Your task to perform on an android device: turn off airplane mode Image 0: 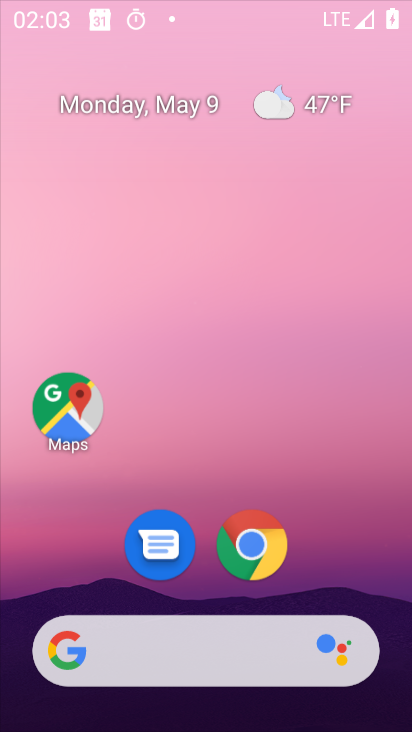
Step 0: drag from (297, 269) to (274, 2)
Your task to perform on an android device: turn off airplane mode Image 1: 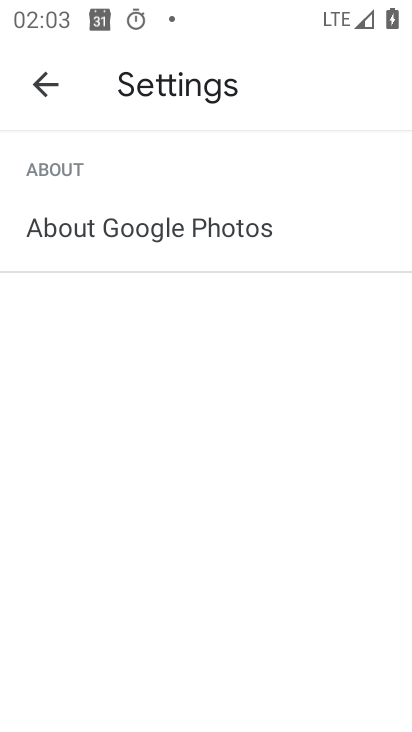
Step 1: press home button
Your task to perform on an android device: turn off airplane mode Image 2: 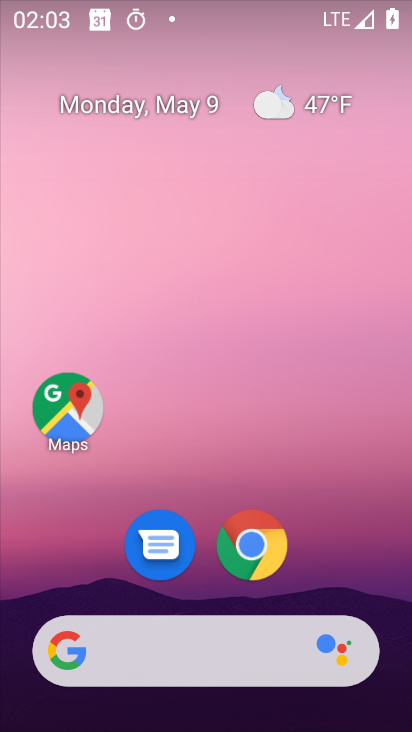
Step 2: drag from (335, 657) to (311, 1)
Your task to perform on an android device: turn off airplane mode Image 3: 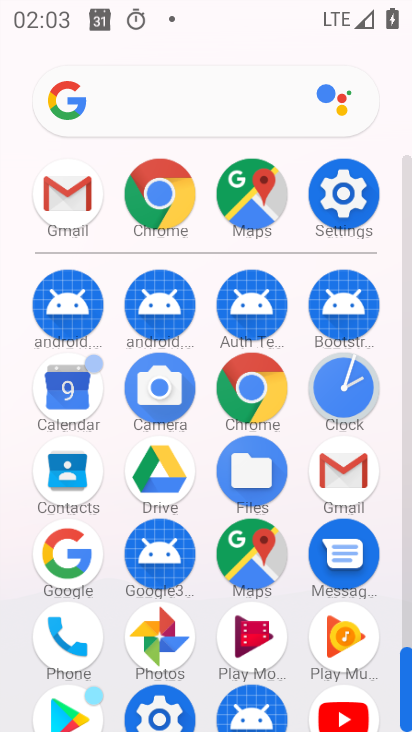
Step 3: click (341, 205)
Your task to perform on an android device: turn off airplane mode Image 4: 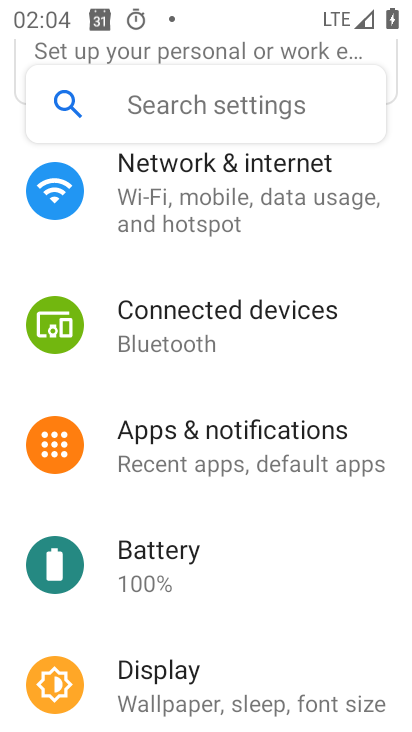
Step 4: task complete